Your task to perform on an android device: Do I have any events this weekend? Image 0: 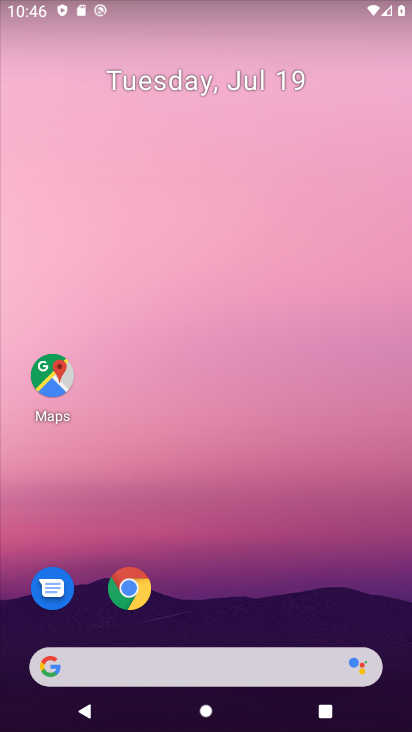
Step 0: drag from (365, 585) to (263, 65)
Your task to perform on an android device: Do I have any events this weekend? Image 1: 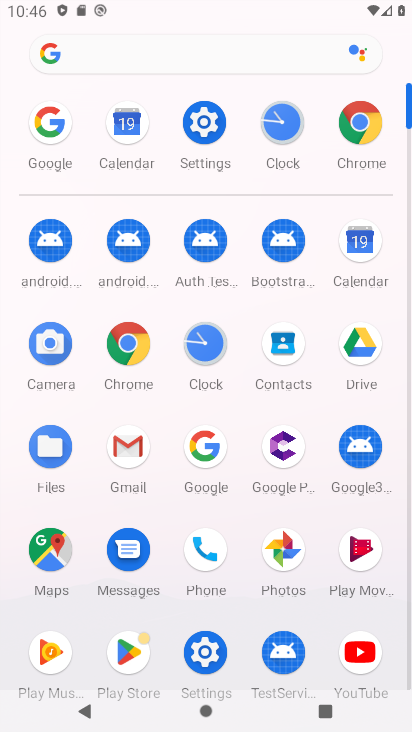
Step 1: click (359, 247)
Your task to perform on an android device: Do I have any events this weekend? Image 2: 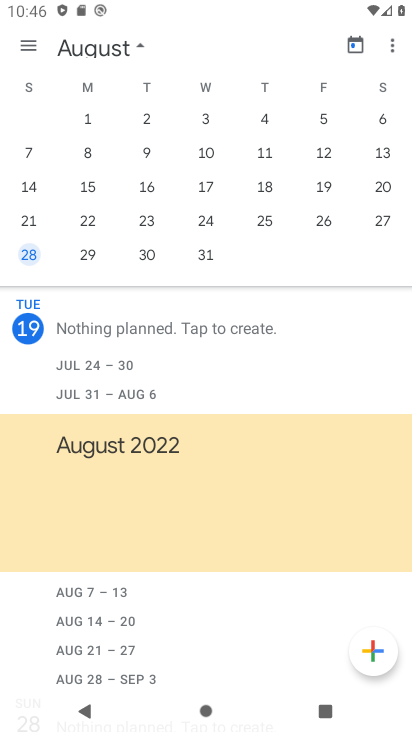
Step 2: task complete